Your task to perform on an android device: open chrome and create a bookmark for the current page Image 0: 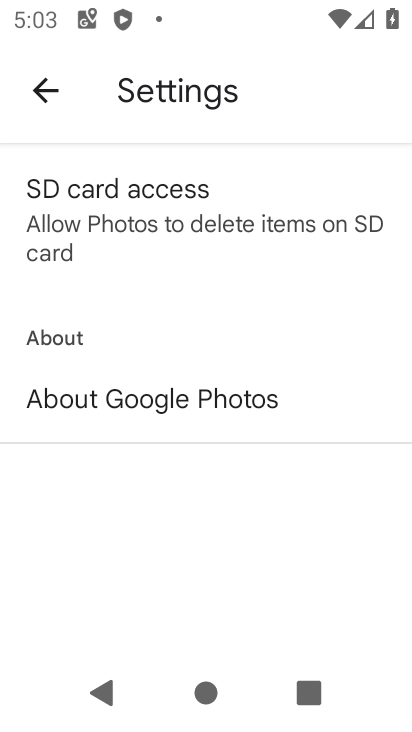
Step 0: press home button
Your task to perform on an android device: open chrome and create a bookmark for the current page Image 1: 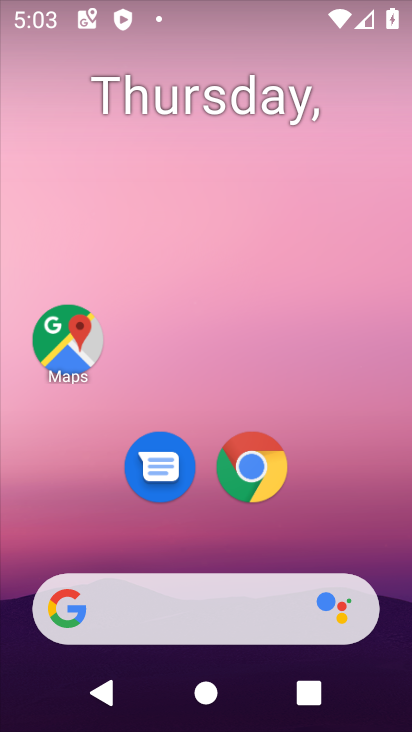
Step 1: click (244, 468)
Your task to perform on an android device: open chrome and create a bookmark for the current page Image 2: 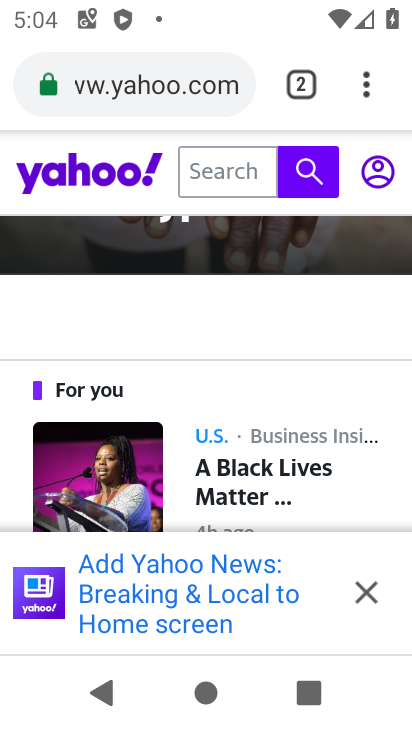
Step 2: click (363, 91)
Your task to perform on an android device: open chrome and create a bookmark for the current page Image 3: 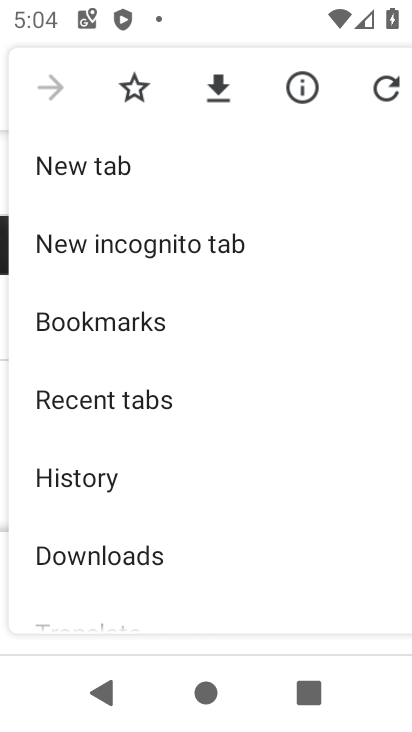
Step 3: click (128, 99)
Your task to perform on an android device: open chrome and create a bookmark for the current page Image 4: 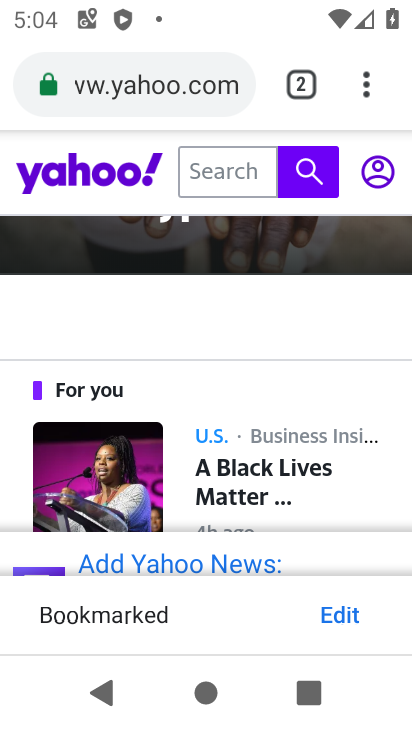
Step 4: task complete